Your task to perform on an android device: open app "DoorDash - Dasher" (install if not already installed), go to login, and select forgot password Image 0: 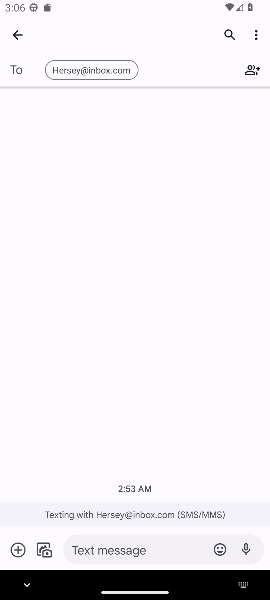
Step 0: press home button
Your task to perform on an android device: open app "DoorDash - Dasher" (install if not already installed), go to login, and select forgot password Image 1: 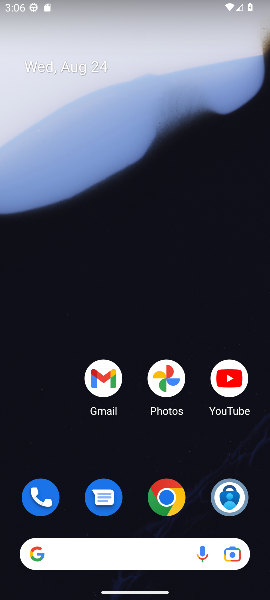
Step 1: drag from (123, 555) to (127, 153)
Your task to perform on an android device: open app "DoorDash - Dasher" (install if not already installed), go to login, and select forgot password Image 2: 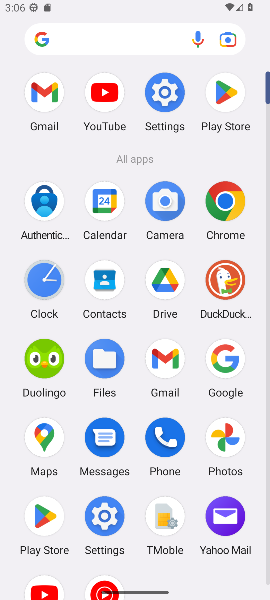
Step 2: click (225, 94)
Your task to perform on an android device: open app "DoorDash - Dasher" (install if not already installed), go to login, and select forgot password Image 3: 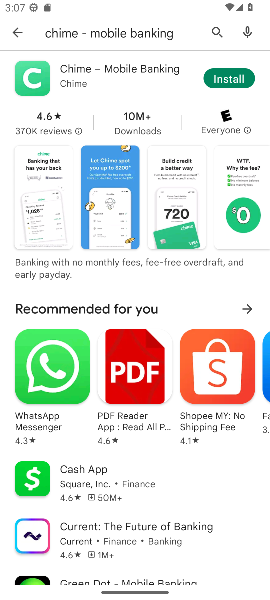
Step 3: press back button
Your task to perform on an android device: open app "DoorDash - Dasher" (install if not already installed), go to login, and select forgot password Image 4: 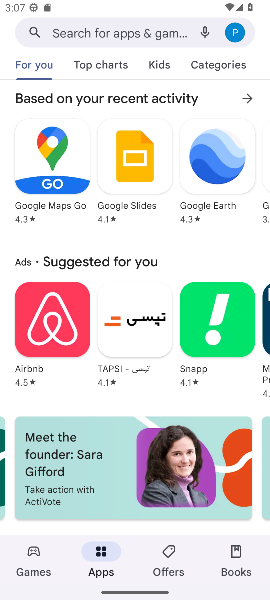
Step 4: click (139, 38)
Your task to perform on an android device: open app "DoorDash - Dasher" (install if not already installed), go to login, and select forgot password Image 5: 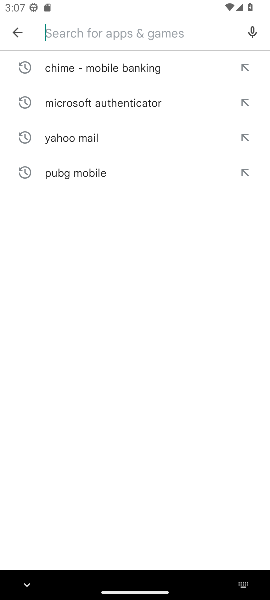
Step 5: type "DoorDash - Dasher"
Your task to perform on an android device: open app "DoorDash - Dasher" (install if not already installed), go to login, and select forgot password Image 6: 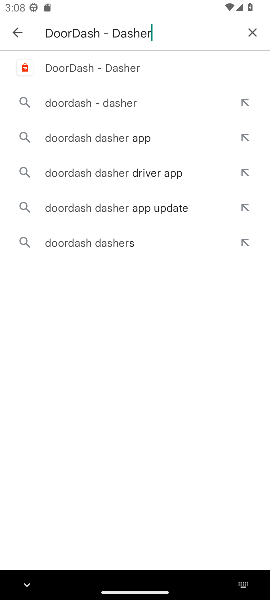
Step 6: click (128, 67)
Your task to perform on an android device: open app "DoorDash - Dasher" (install if not already installed), go to login, and select forgot password Image 7: 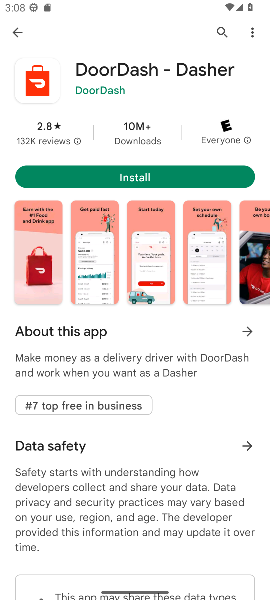
Step 7: click (143, 177)
Your task to perform on an android device: open app "DoorDash - Dasher" (install if not already installed), go to login, and select forgot password Image 8: 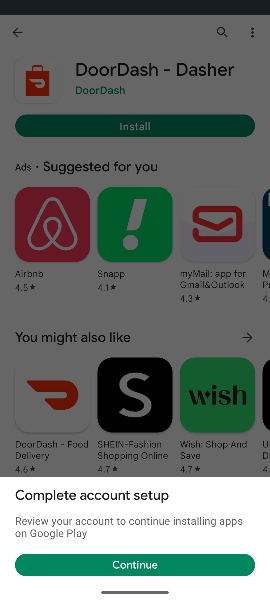
Step 8: click (134, 563)
Your task to perform on an android device: open app "DoorDash - Dasher" (install if not already installed), go to login, and select forgot password Image 9: 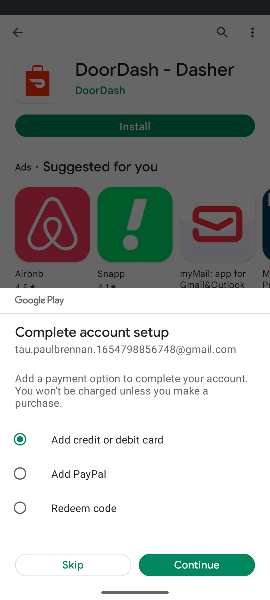
Step 9: click (81, 562)
Your task to perform on an android device: open app "DoorDash - Dasher" (install if not already installed), go to login, and select forgot password Image 10: 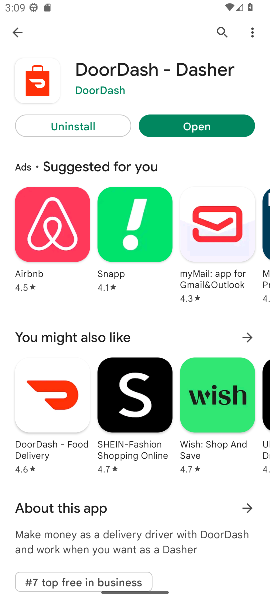
Step 10: click (210, 126)
Your task to perform on an android device: open app "DoorDash - Dasher" (install if not already installed), go to login, and select forgot password Image 11: 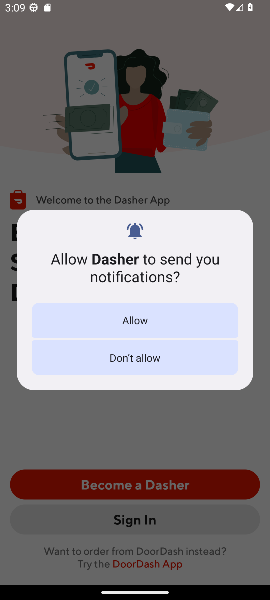
Step 11: click (139, 321)
Your task to perform on an android device: open app "DoorDash - Dasher" (install if not already installed), go to login, and select forgot password Image 12: 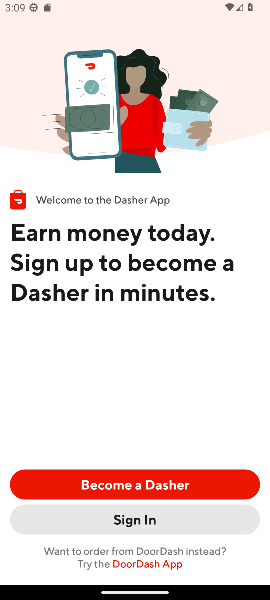
Step 12: click (132, 512)
Your task to perform on an android device: open app "DoorDash - Dasher" (install if not already installed), go to login, and select forgot password Image 13: 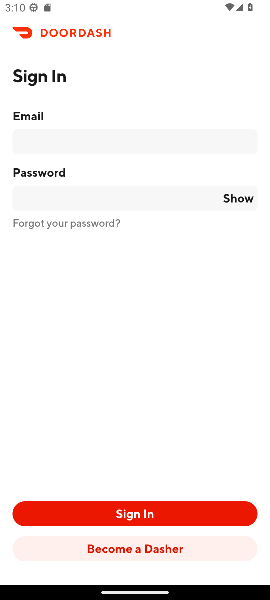
Step 13: click (75, 224)
Your task to perform on an android device: open app "DoorDash - Dasher" (install if not already installed), go to login, and select forgot password Image 14: 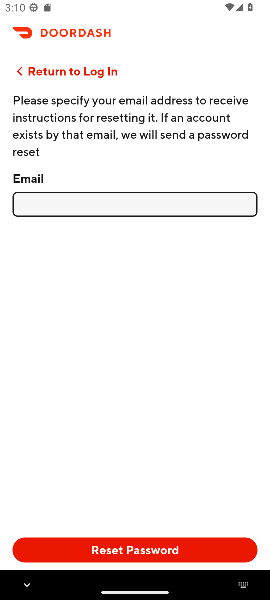
Step 14: task complete